Your task to perform on an android device: Where can I buy a nice beach chair? Image 0: 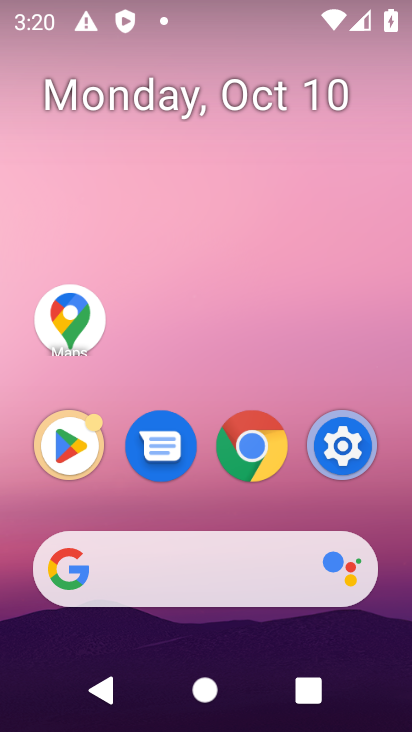
Step 0: click (218, 570)
Your task to perform on an android device: Where can I buy a nice beach chair? Image 1: 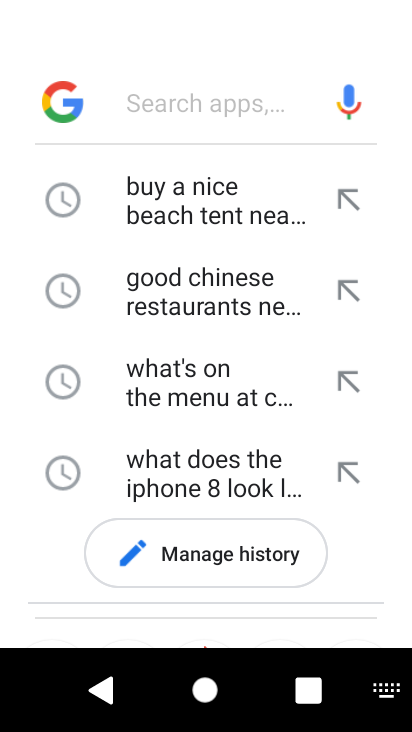
Step 1: type " buy a nice beach chair"
Your task to perform on an android device: Where can I buy a nice beach chair? Image 2: 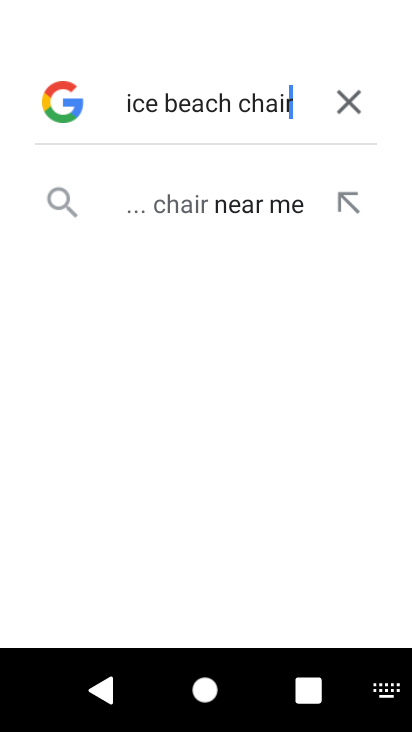
Step 2: type ""
Your task to perform on an android device: Where can I buy a nice beach chair? Image 3: 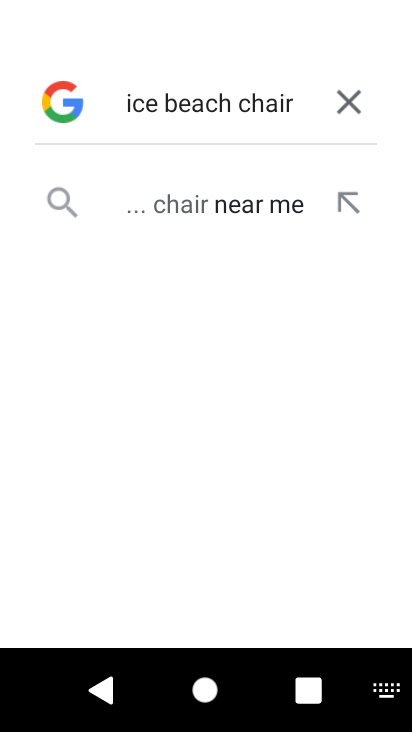
Step 3: click (262, 212)
Your task to perform on an android device: Where can I buy a nice beach chair? Image 4: 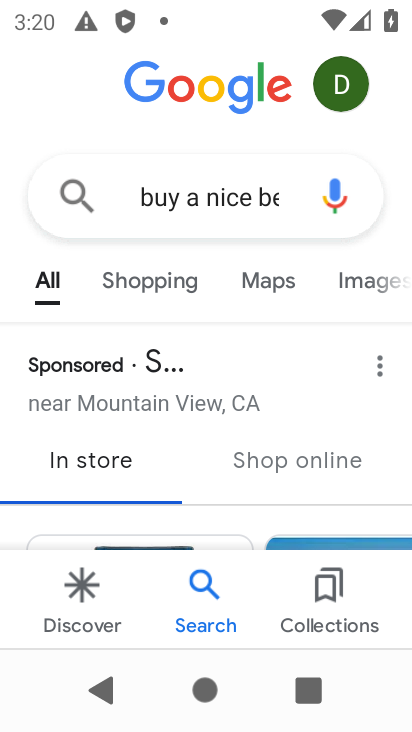
Step 4: task complete